Your task to perform on an android device: change text size in settings app Image 0: 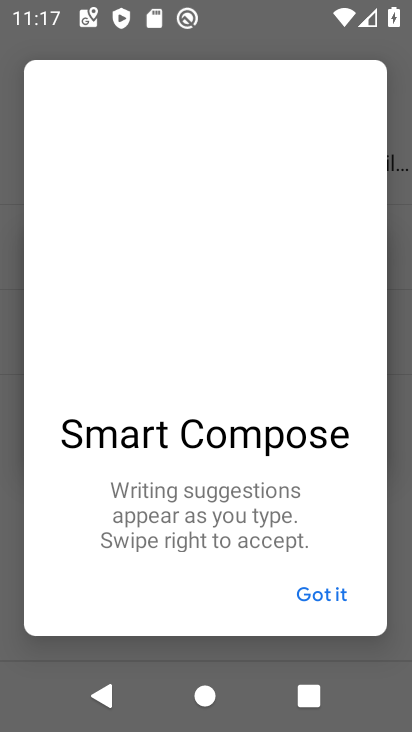
Step 0: press home button
Your task to perform on an android device: change text size in settings app Image 1: 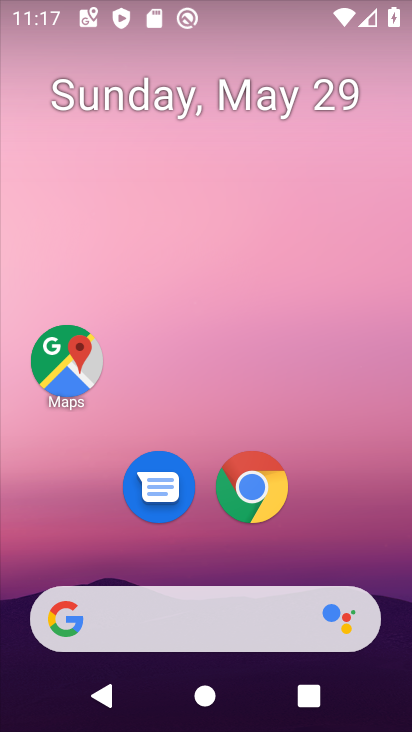
Step 1: drag from (376, 551) to (369, 93)
Your task to perform on an android device: change text size in settings app Image 2: 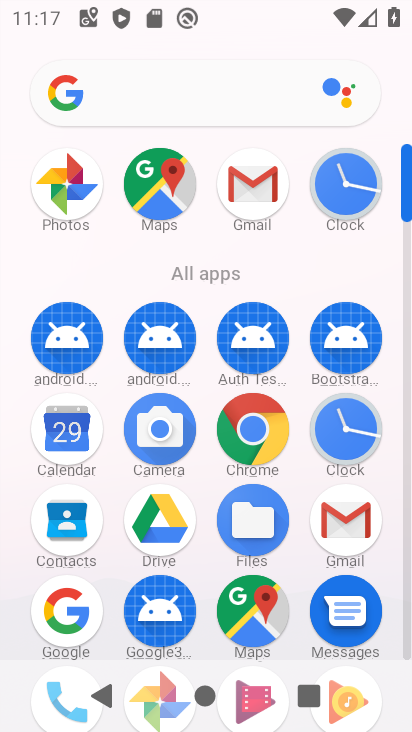
Step 2: drag from (386, 580) to (392, 285)
Your task to perform on an android device: change text size in settings app Image 3: 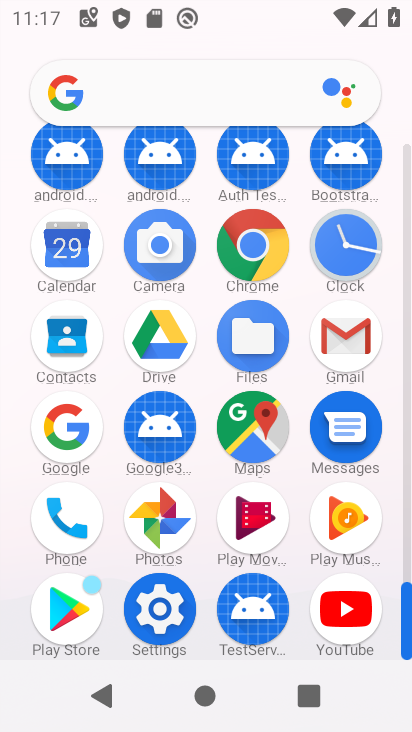
Step 3: click (176, 625)
Your task to perform on an android device: change text size in settings app Image 4: 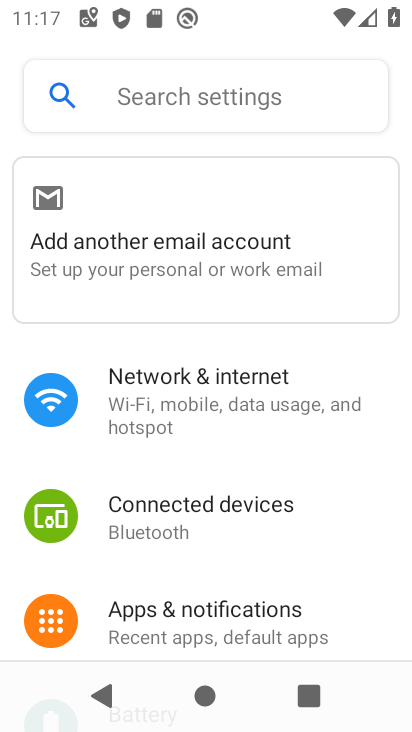
Step 4: drag from (332, 563) to (333, 394)
Your task to perform on an android device: change text size in settings app Image 5: 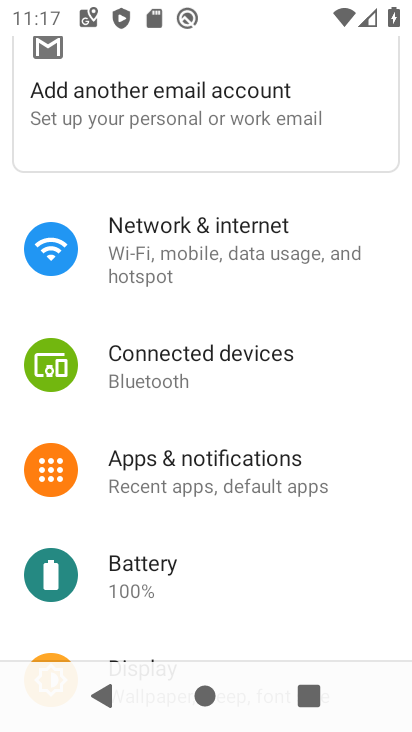
Step 5: drag from (332, 567) to (328, 413)
Your task to perform on an android device: change text size in settings app Image 6: 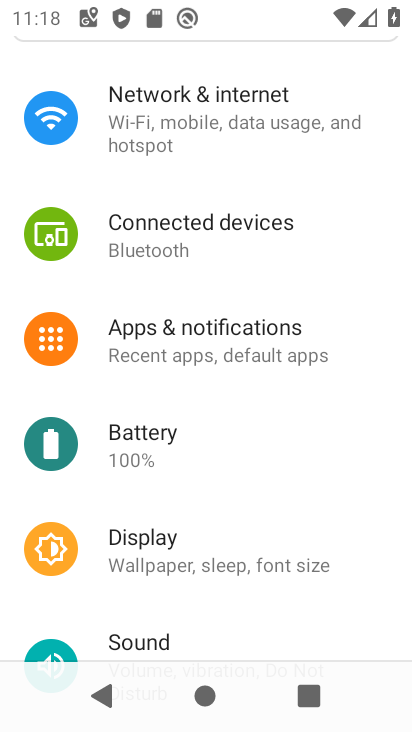
Step 6: drag from (328, 580) to (359, 317)
Your task to perform on an android device: change text size in settings app Image 7: 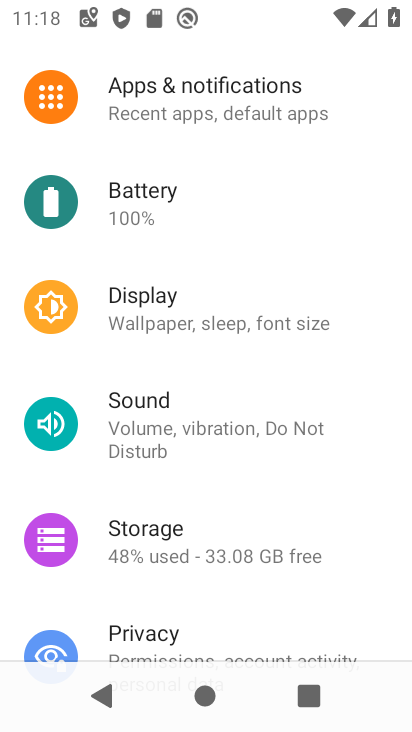
Step 7: drag from (352, 538) to (359, 380)
Your task to perform on an android device: change text size in settings app Image 8: 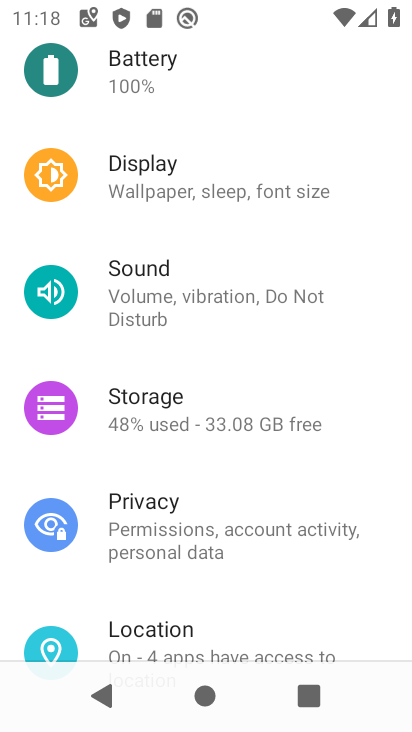
Step 8: drag from (344, 573) to (361, 397)
Your task to perform on an android device: change text size in settings app Image 9: 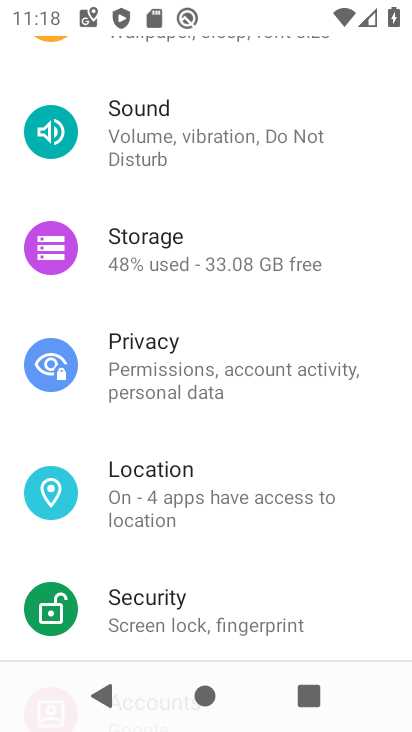
Step 9: drag from (355, 564) to (355, 387)
Your task to perform on an android device: change text size in settings app Image 10: 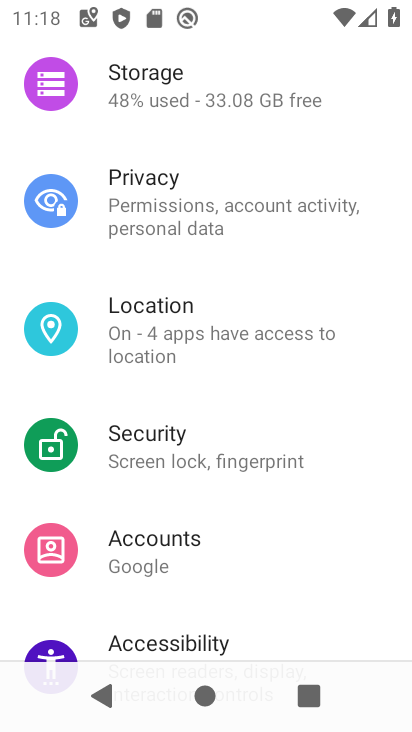
Step 10: drag from (350, 573) to (358, 395)
Your task to perform on an android device: change text size in settings app Image 11: 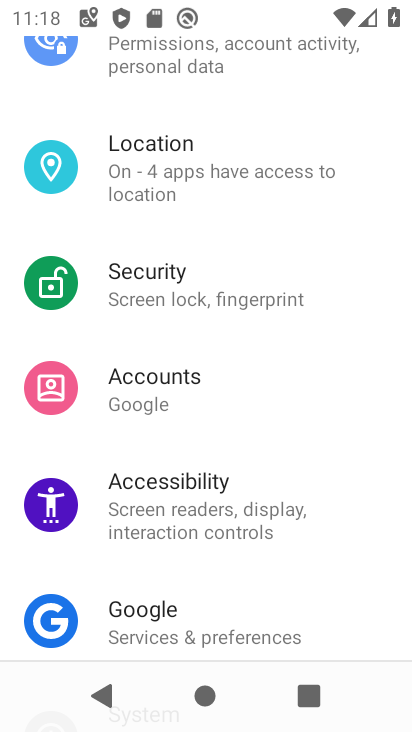
Step 11: drag from (344, 572) to (361, 354)
Your task to perform on an android device: change text size in settings app Image 12: 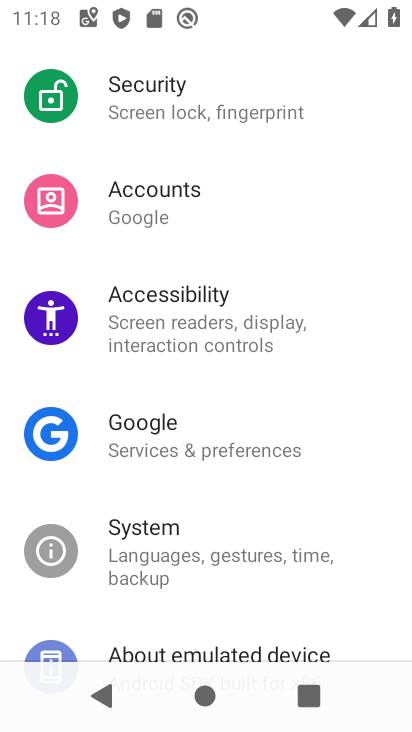
Step 12: drag from (353, 241) to (357, 334)
Your task to perform on an android device: change text size in settings app Image 13: 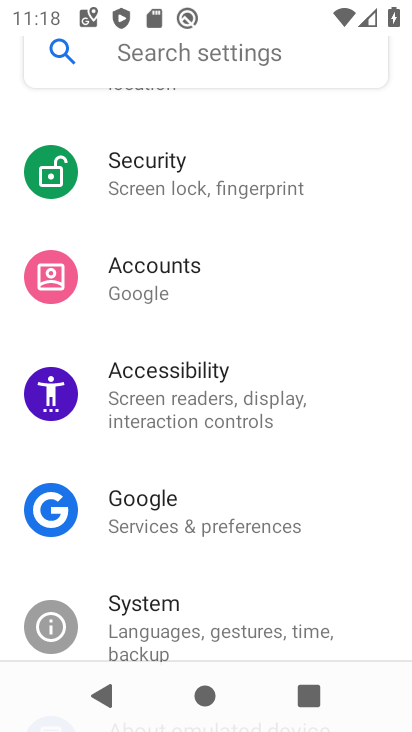
Step 13: drag from (357, 208) to (358, 321)
Your task to perform on an android device: change text size in settings app Image 14: 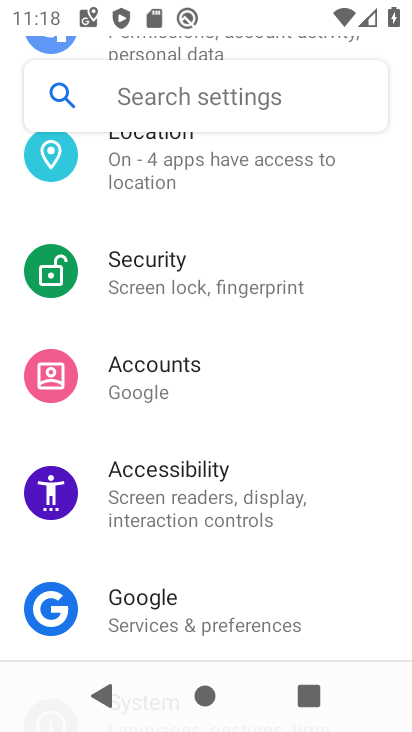
Step 14: drag from (357, 219) to (356, 332)
Your task to perform on an android device: change text size in settings app Image 15: 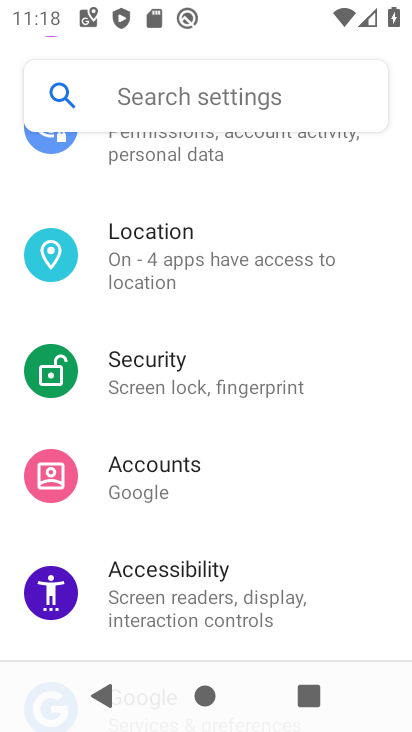
Step 15: drag from (343, 188) to (343, 321)
Your task to perform on an android device: change text size in settings app Image 16: 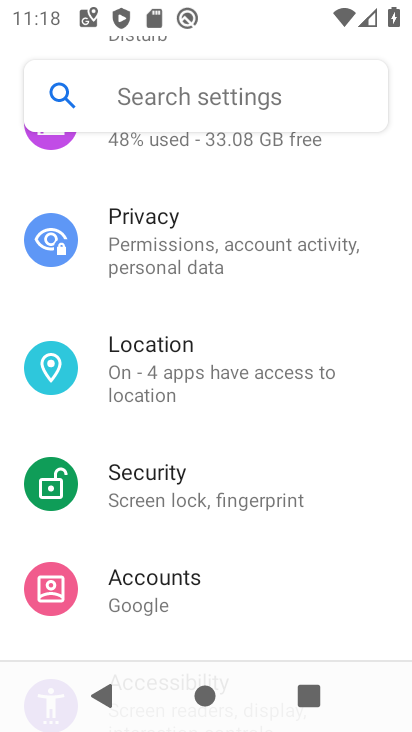
Step 16: drag from (331, 193) to (330, 326)
Your task to perform on an android device: change text size in settings app Image 17: 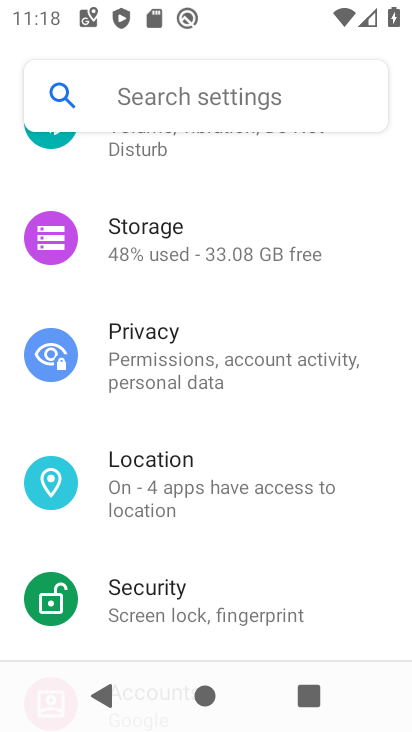
Step 17: drag from (334, 186) to (338, 326)
Your task to perform on an android device: change text size in settings app Image 18: 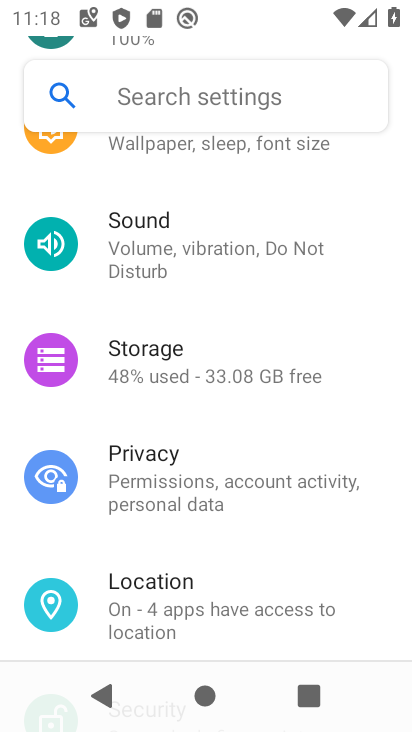
Step 18: drag from (349, 205) to (351, 362)
Your task to perform on an android device: change text size in settings app Image 19: 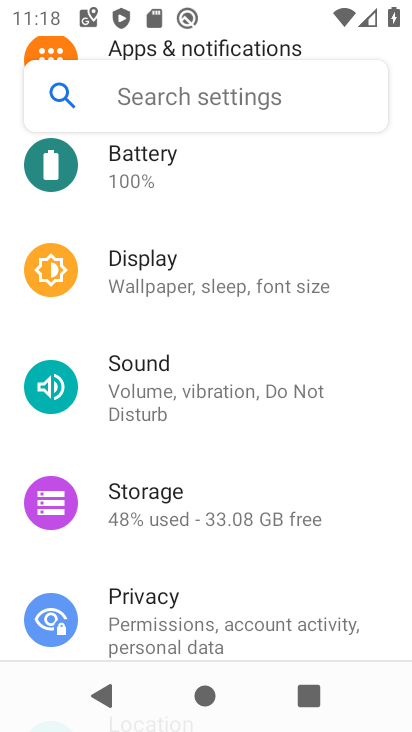
Step 19: drag from (346, 176) to (346, 320)
Your task to perform on an android device: change text size in settings app Image 20: 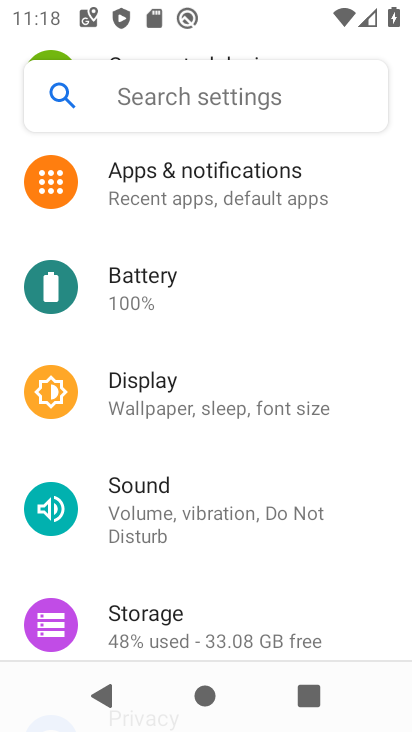
Step 20: drag from (358, 175) to (359, 302)
Your task to perform on an android device: change text size in settings app Image 21: 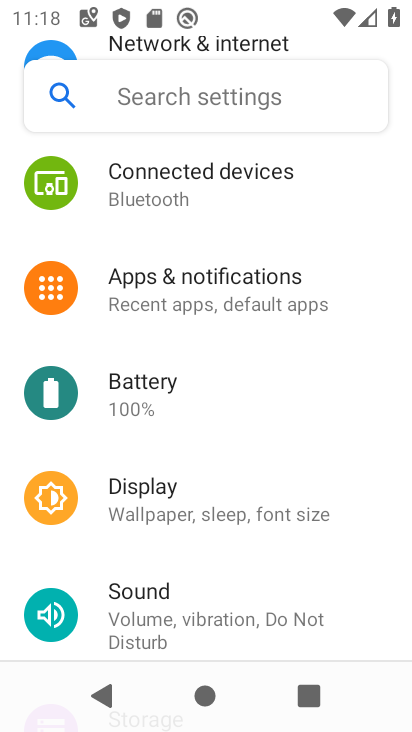
Step 21: click (327, 501)
Your task to perform on an android device: change text size in settings app Image 22: 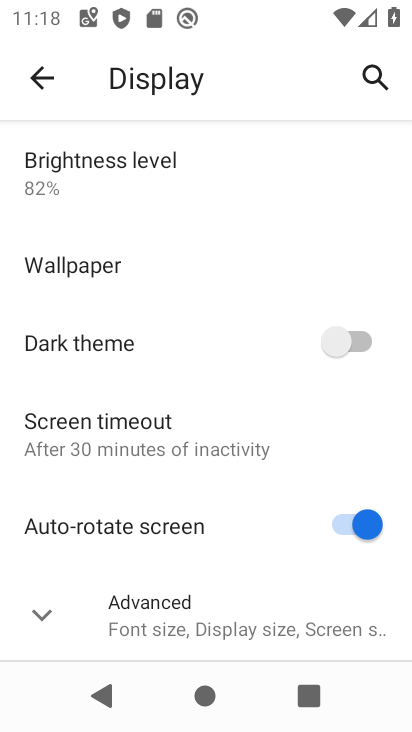
Step 22: drag from (239, 565) to (249, 400)
Your task to perform on an android device: change text size in settings app Image 23: 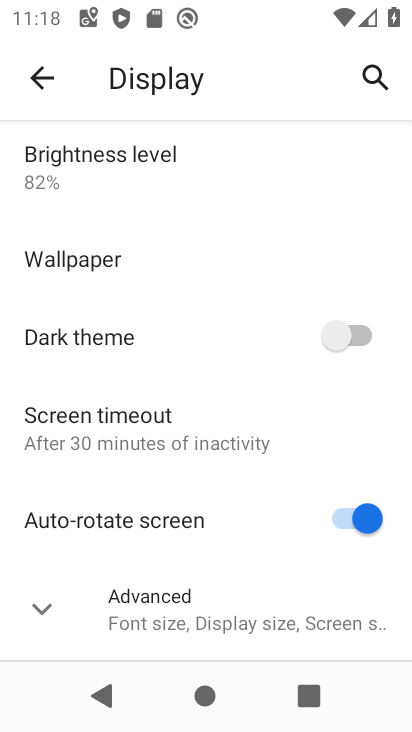
Step 23: click (247, 614)
Your task to perform on an android device: change text size in settings app Image 24: 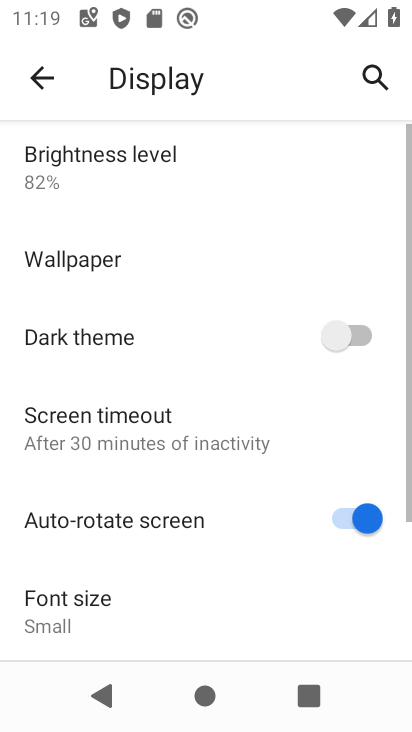
Step 24: drag from (238, 533) to (240, 159)
Your task to perform on an android device: change text size in settings app Image 25: 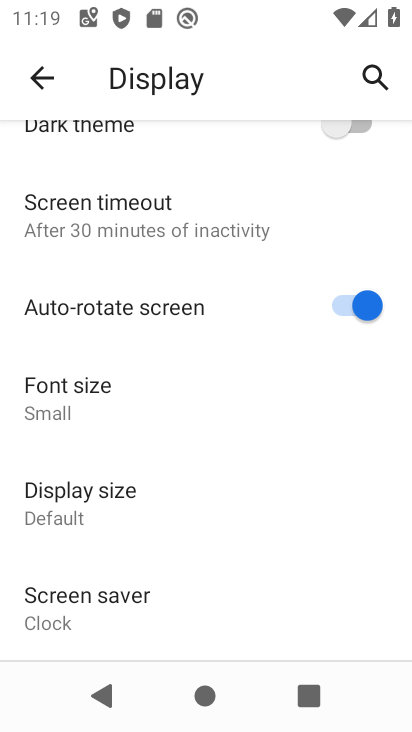
Step 25: click (90, 396)
Your task to perform on an android device: change text size in settings app Image 26: 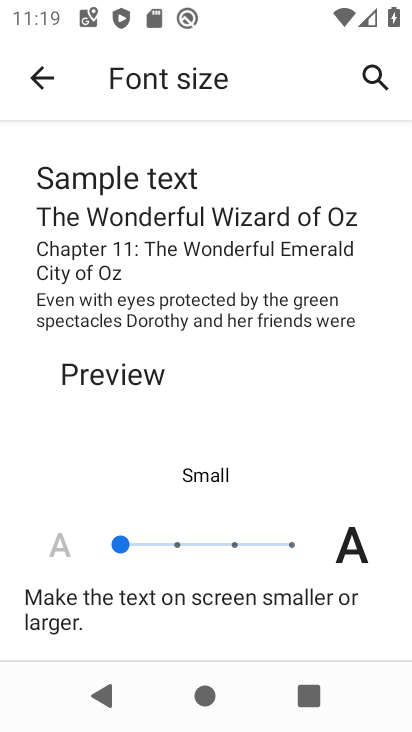
Step 26: click (165, 553)
Your task to perform on an android device: change text size in settings app Image 27: 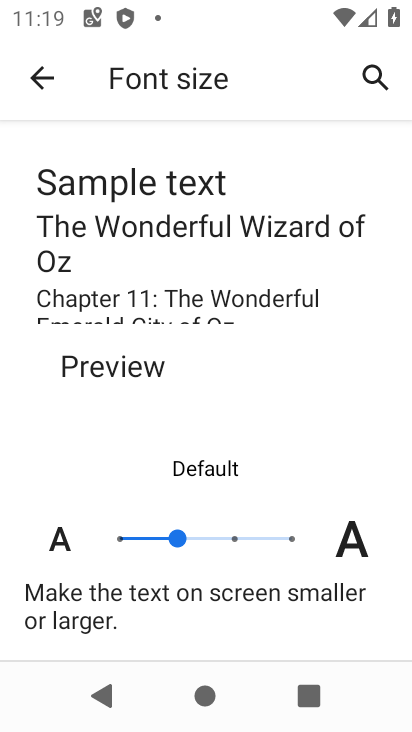
Step 27: task complete